Your task to perform on an android device: find snoozed emails in the gmail app Image 0: 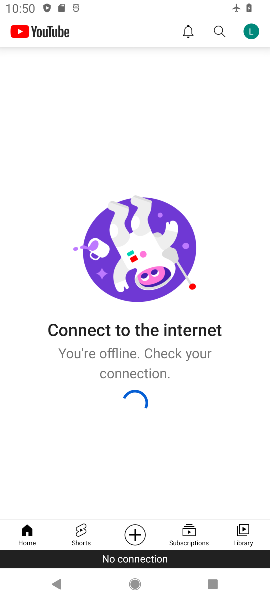
Step 0: press back button
Your task to perform on an android device: find snoozed emails in the gmail app Image 1: 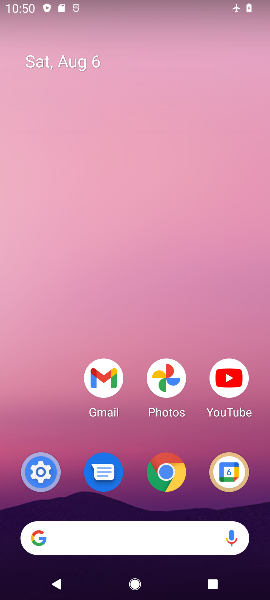
Step 1: drag from (194, 569) to (127, 118)
Your task to perform on an android device: find snoozed emails in the gmail app Image 2: 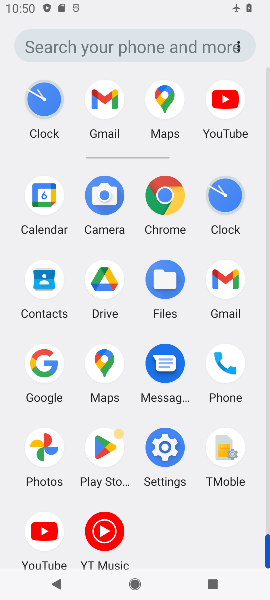
Step 2: click (235, 272)
Your task to perform on an android device: find snoozed emails in the gmail app Image 3: 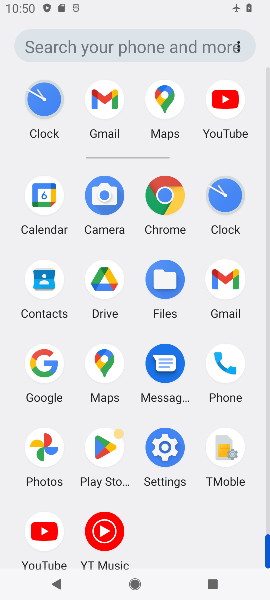
Step 3: click (234, 272)
Your task to perform on an android device: find snoozed emails in the gmail app Image 4: 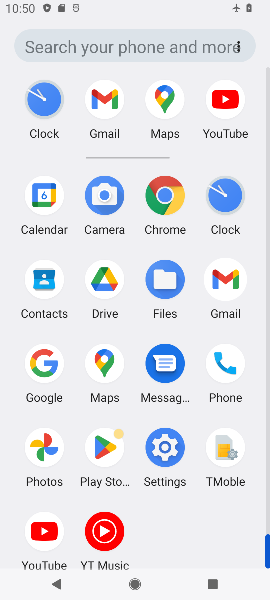
Step 4: click (234, 272)
Your task to perform on an android device: find snoozed emails in the gmail app Image 5: 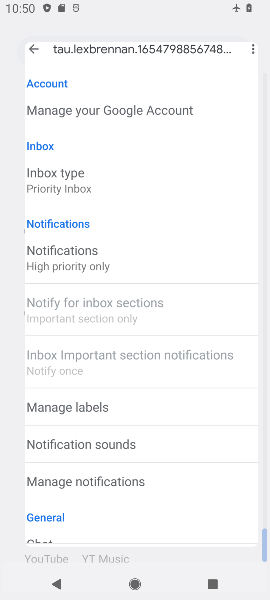
Step 5: click (233, 272)
Your task to perform on an android device: find snoozed emails in the gmail app Image 6: 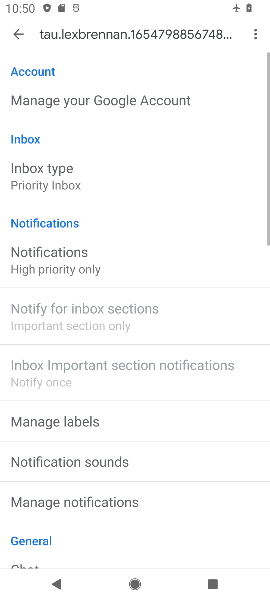
Step 6: click (233, 272)
Your task to perform on an android device: find snoozed emails in the gmail app Image 7: 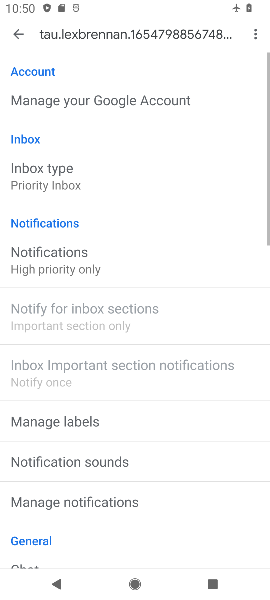
Step 7: click (234, 273)
Your task to perform on an android device: find snoozed emails in the gmail app Image 8: 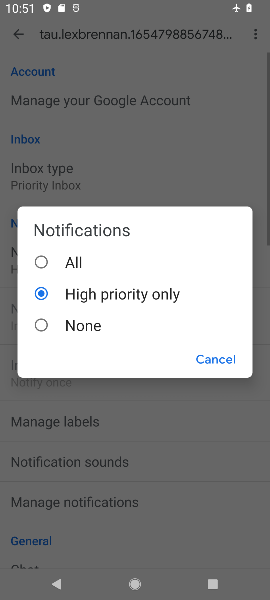
Step 8: click (225, 365)
Your task to perform on an android device: find snoozed emails in the gmail app Image 9: 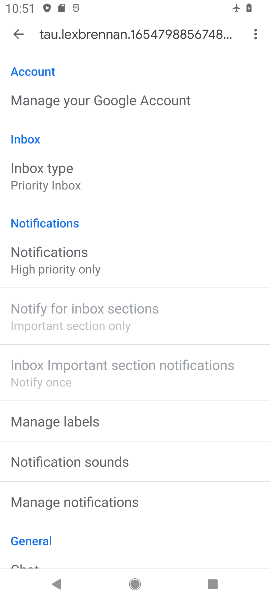
Step 9: click (15, 31)
Your task to perform on an android device: find snoozed emails in the gmail app Image 10: 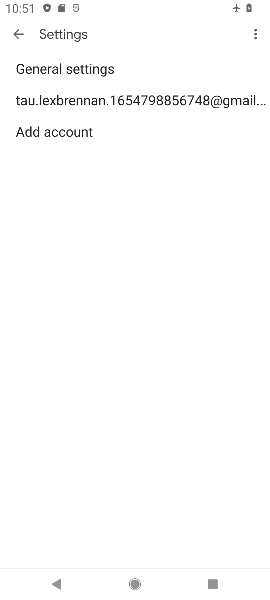
Step 10: click (15, 34)
Your task to perform on an android device: find snoozed emails in the gmail app Image 11: 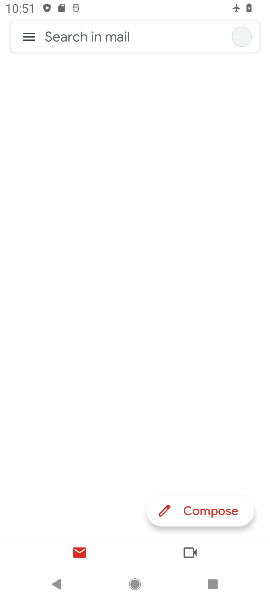
Step 11: click (17, 35)
Your task to perform on an android device: find snoozed emails in the gmail app Image 12: 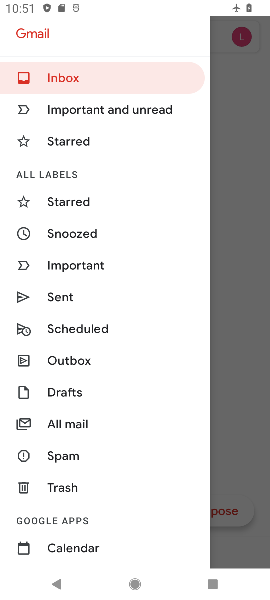
Step 12: click (19, 36)
Your task to perform on an android device: find snoozed emails in the gmail app Image 13: 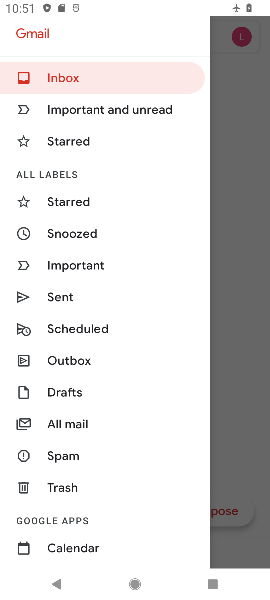
Step 13: click (83, 228)
Your task to perform on an android device: find snoozed emails in the gmail app Image 14: 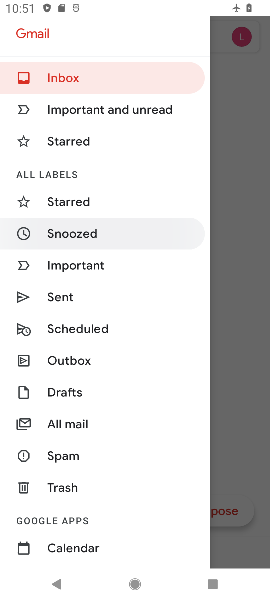
Step 14: click (83, 228)
Your task to perform on an android device: find snoozed emails in the gmail app Image 15: 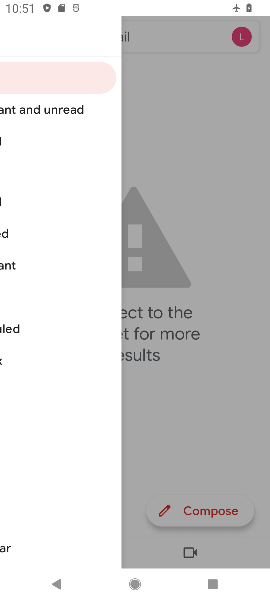
Step 15: click (83, 228)
Your task to perform on an android device: find snoozed emails in the gmail app Image 16: 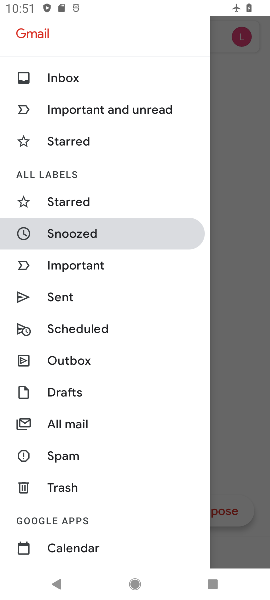
Step 16: task complete